Your task to perform on an android device: turn pop-ups off in chrome Image 0: 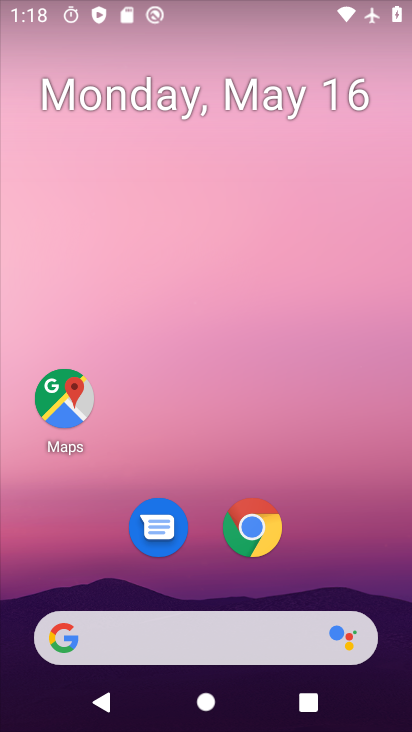
Step 0: click (256, 547)
Your task to perform on an android device: turn pop-ups off in chrome Image 1: 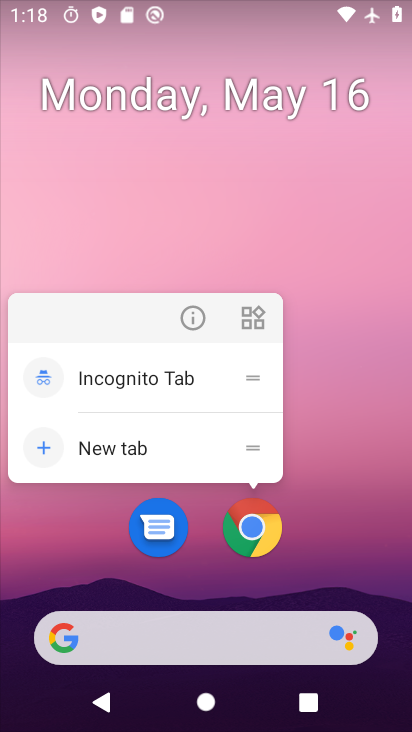
Step 1: click (248, 534)
Your task to perform on an android device: turn pop-ups off in chrome Image 2: 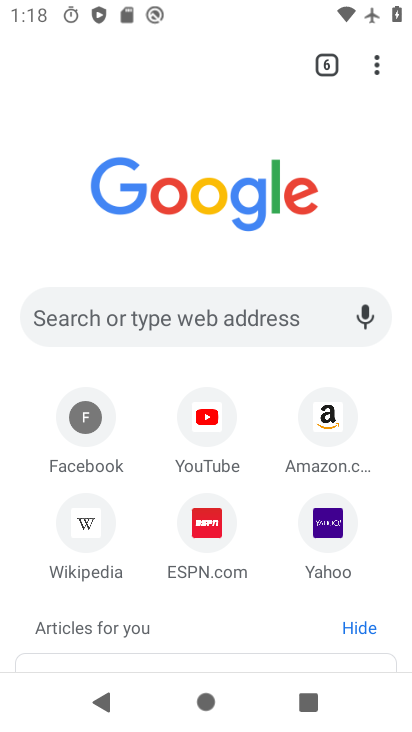
Step 2: drag from (372, 64) to (248, 553)
Your task to perform on an android device: turn pop-ups off in chrome Image 3: 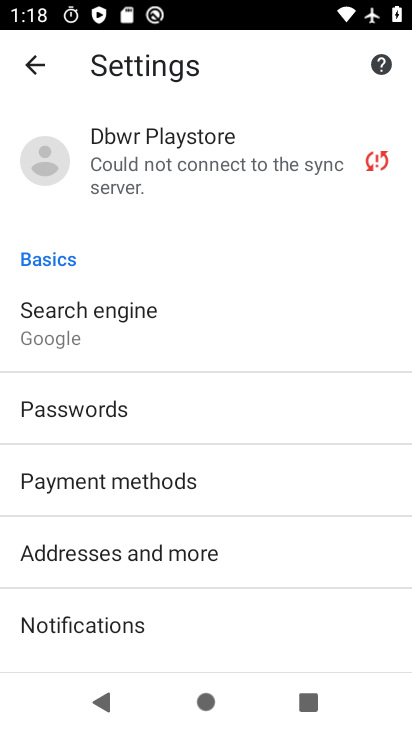
Step 3: drag from (222, 611) to (263, 212)
Your task to perform on an android device: turn pop-ups off in chrome Image 4: 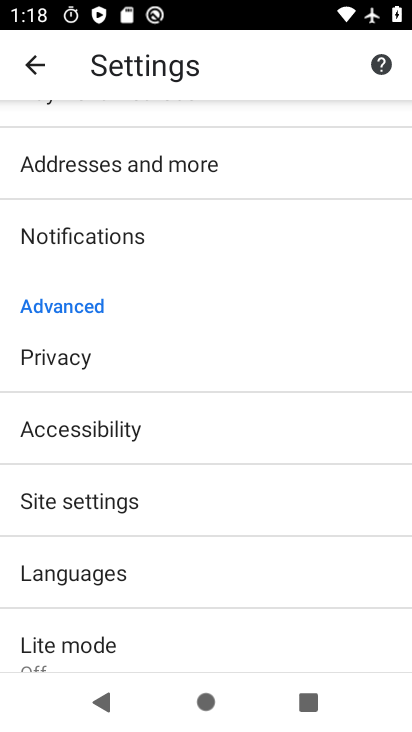
Step 4: click (118, 500)
Your task to perform on an android device: turn pop-ups off in chrome Image 5: 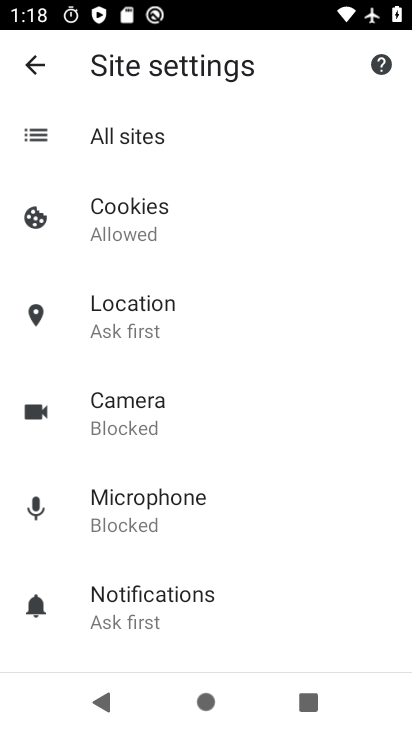
Step 5: drag from (240, 581) to (321, 159)
Your task to perform on an android device: turn pop-ups off in chrome Image 6: 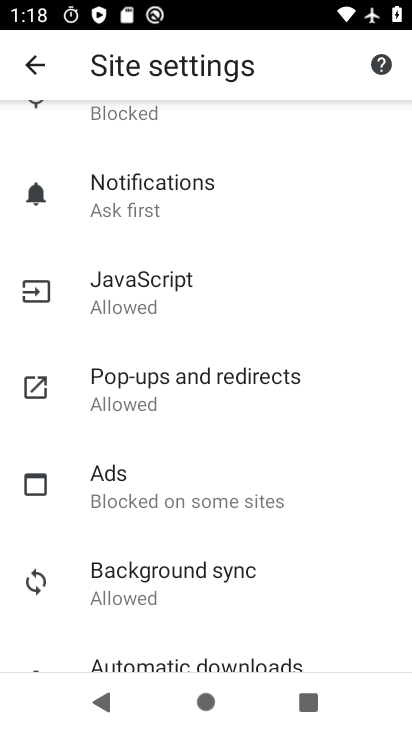
Step 6: click (138, 390)
Your task to perform on an android device: turn pop-ups off in chrome Image 7: 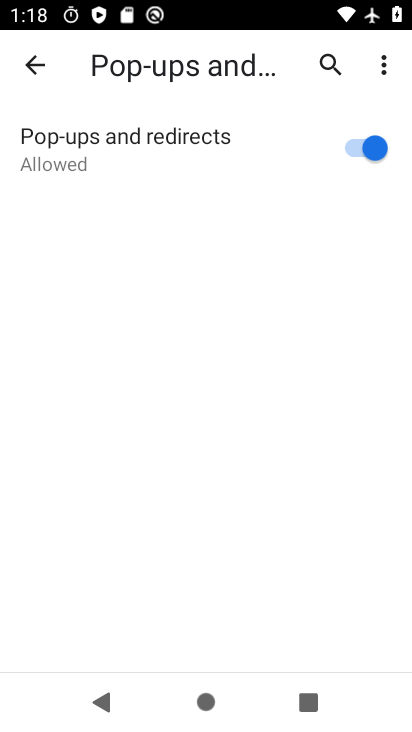
Step 7: click (359, 148)
Your task to perform on an android device: turn pop-ups off in chrome Image 8: 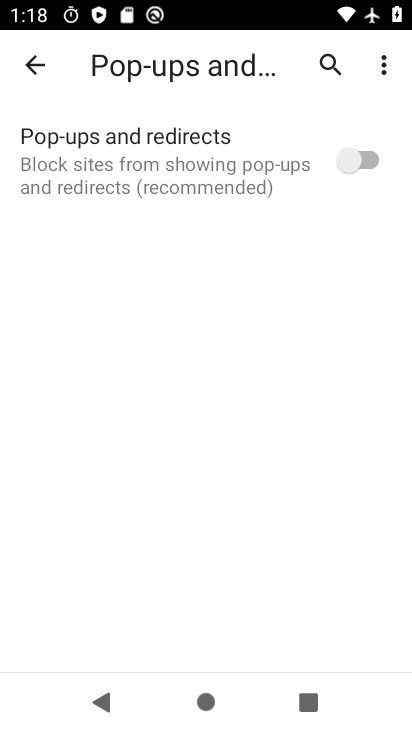
Step 8: task complete